Your task to perform on an android device: Open accessibility settings Image 0: 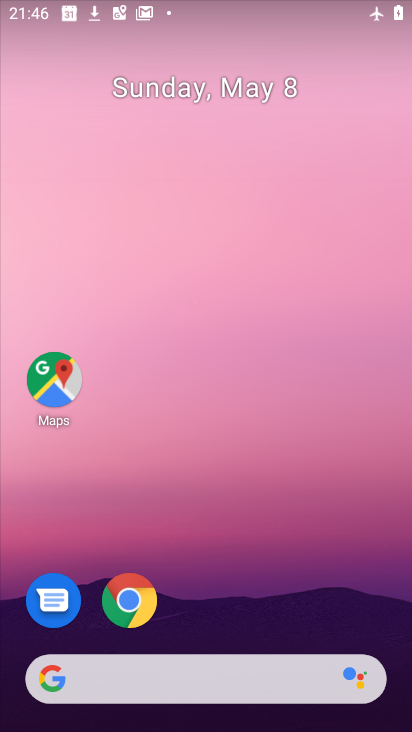
Step 0: drag from (260, 696) to (246, 259)
Your task to perform on an android device: Open accessibility settings Image 1: 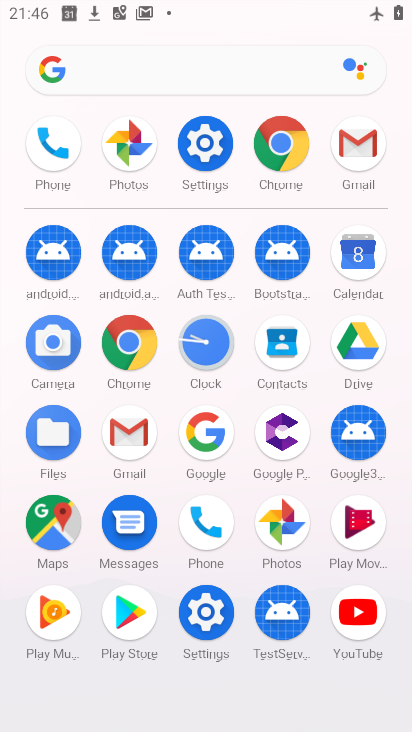
Step 1: click (206, 152)
Your task to perform on an android device: Open accessibility settings Image 2: 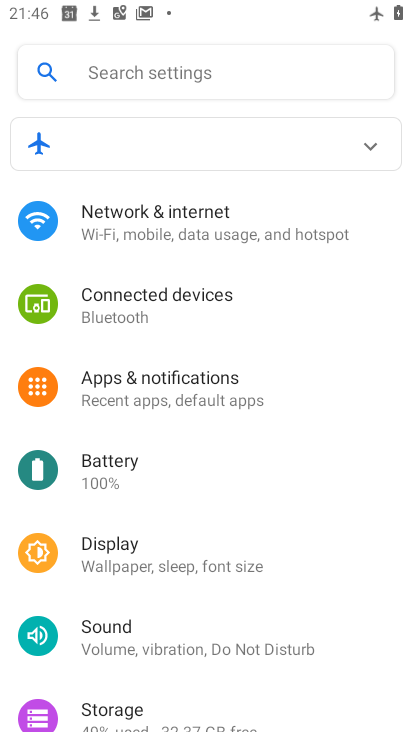
Step 2: click (152, 76)
Your task to perform on an android device: Open accessibility settings Image 3: 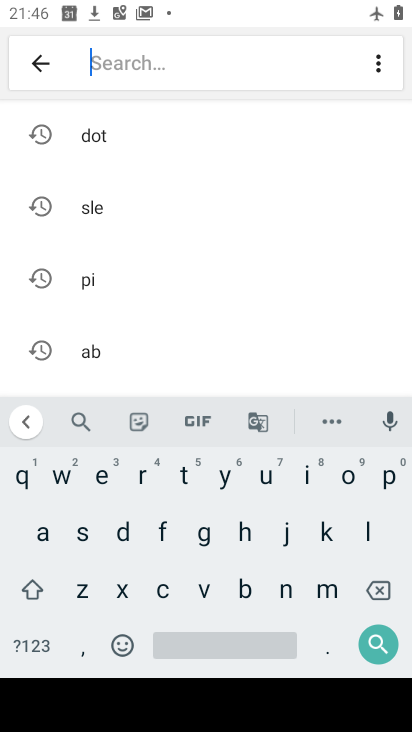
Step 3: click (41, 537)
Your task to perform on an android device: Open accessibility settings Image 4: 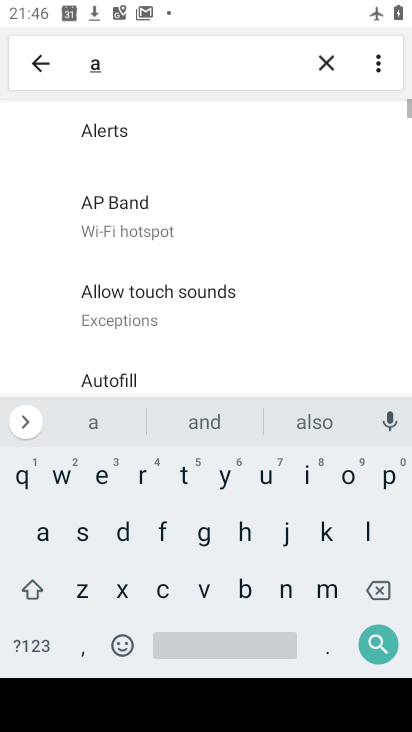
Step 4: click (153, 590)
Your task to perform on an android device: Open accessibility settings Image 5: 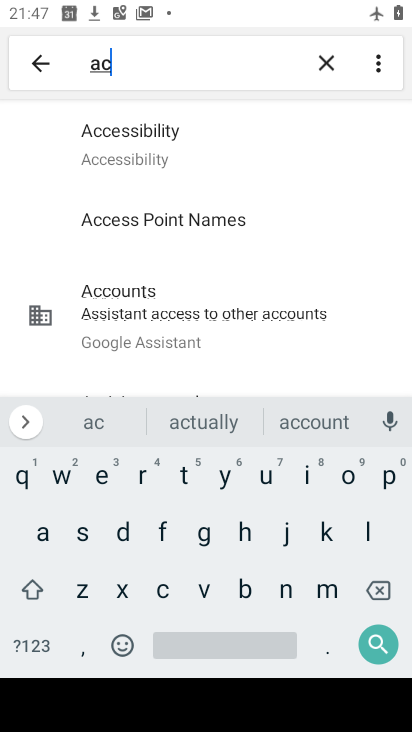
Step 5: click (211, 139)
Your task to perform on an android device: Open accessibility settings Image 6: 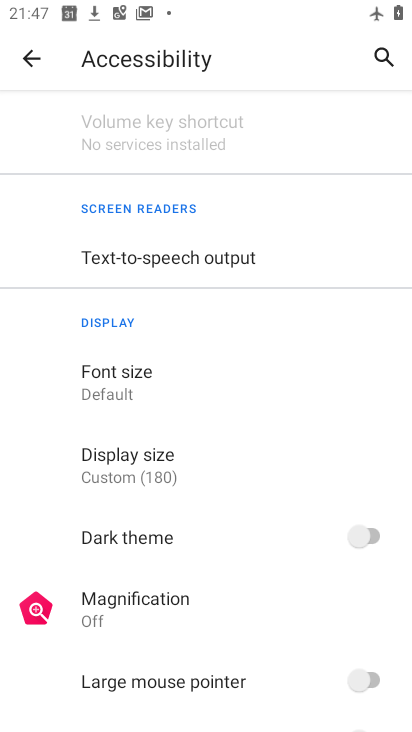
Step 6: task complete